Your task to perform on an android device: change the clock display to digital Image 0: 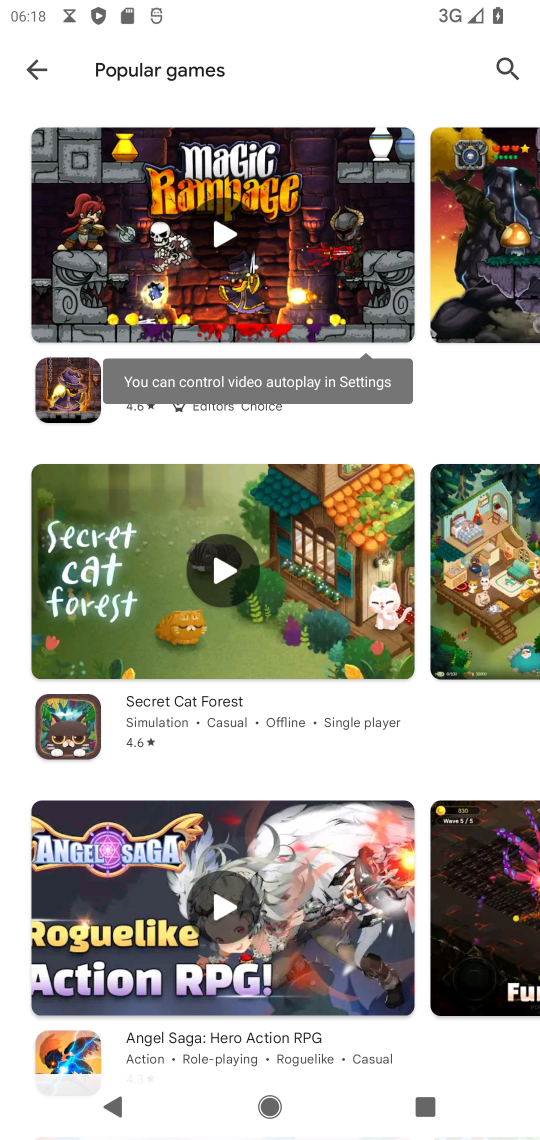
Step 0: press home button
Your task to perform on an android device: change the clock display to digital Image 1: 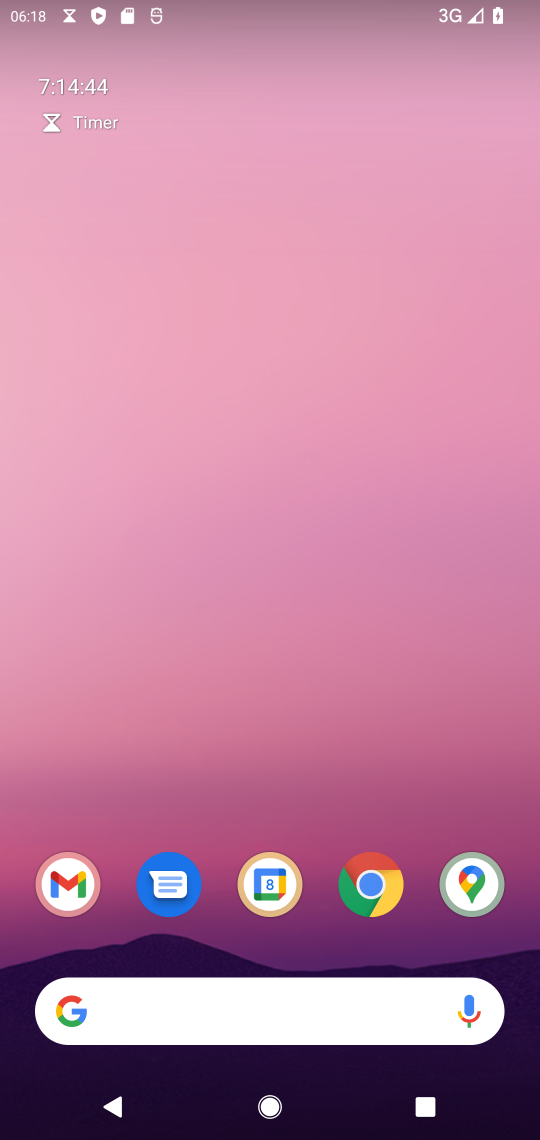
Step 1: drag from (406, 831) to (353, 83)
Your task to perform on an android device: change the clock display to digital Image 2: 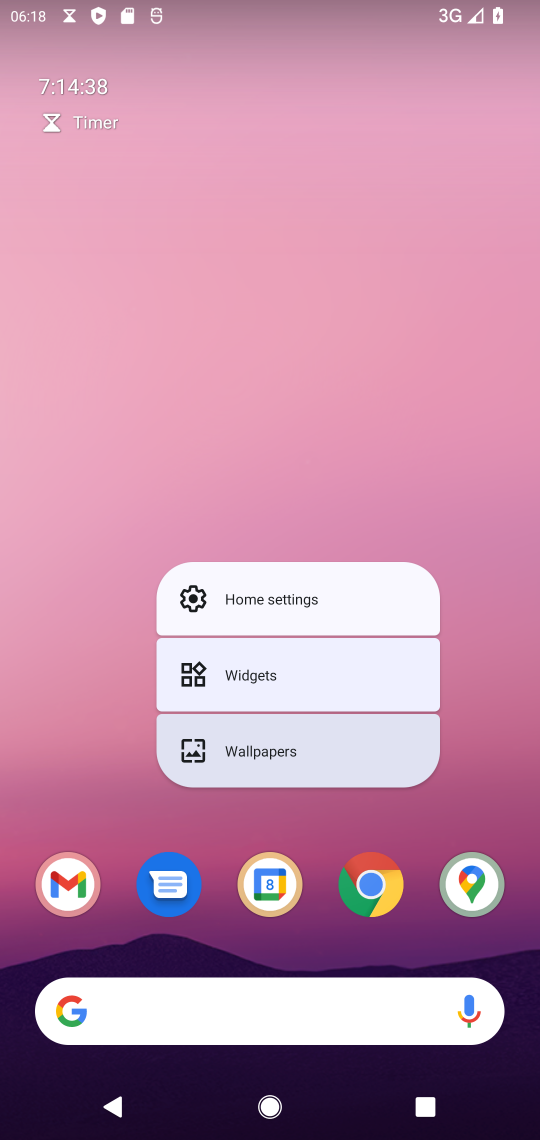
Step 2: drag from (524, 860) to (434, 188)
Your task to perform on an android device: change the clock display to digital Image 3: 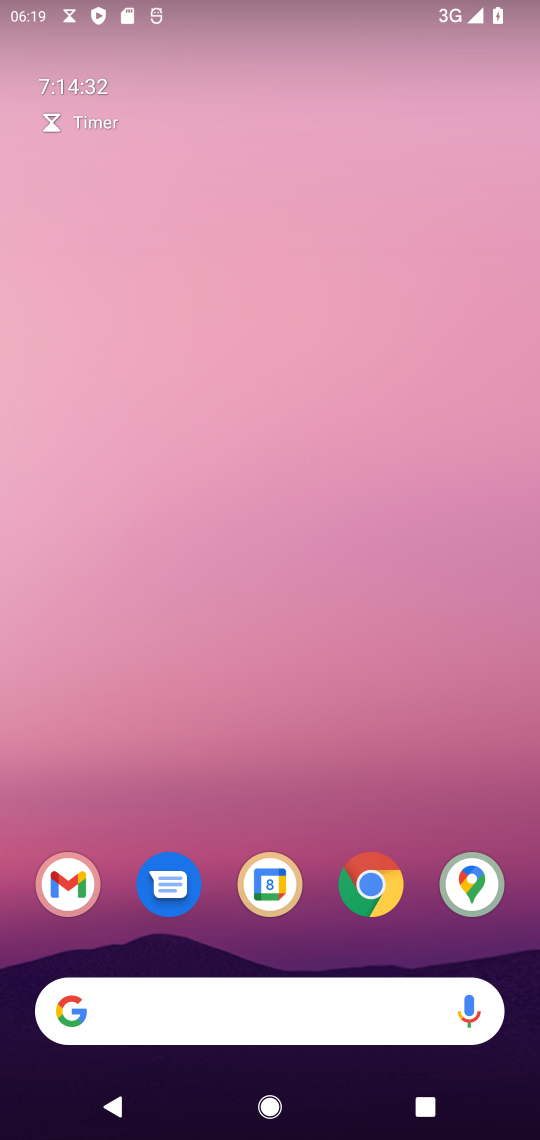
Step 3: drag from (428, 939) to (354, 41)
Your task to perform on an android device: change the clock display to digital Image 4: 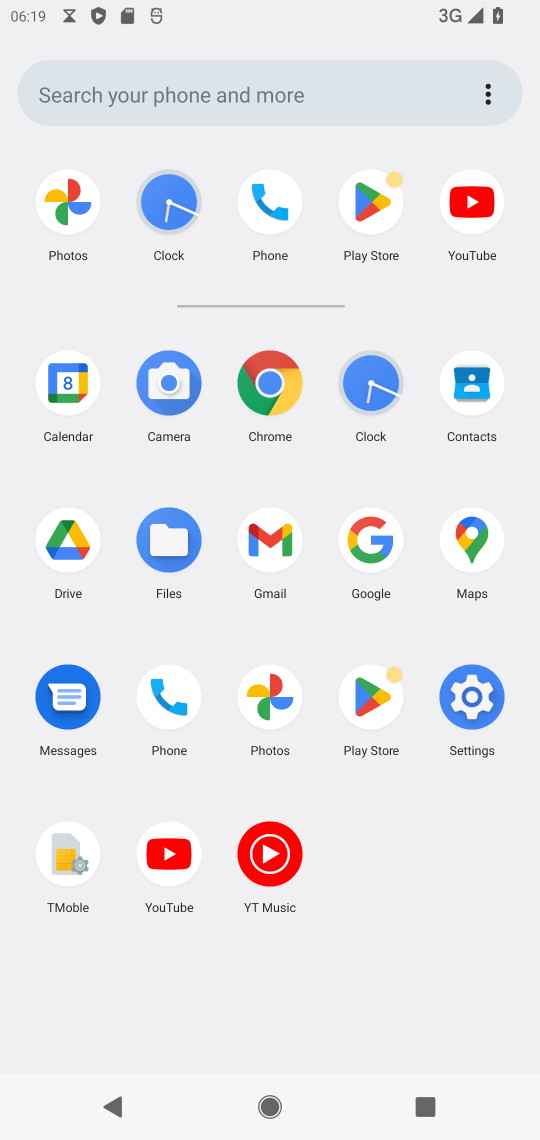
Step 4: click (376, 393)
Your task to perform on an android device: change the clock display to digital Image 5: 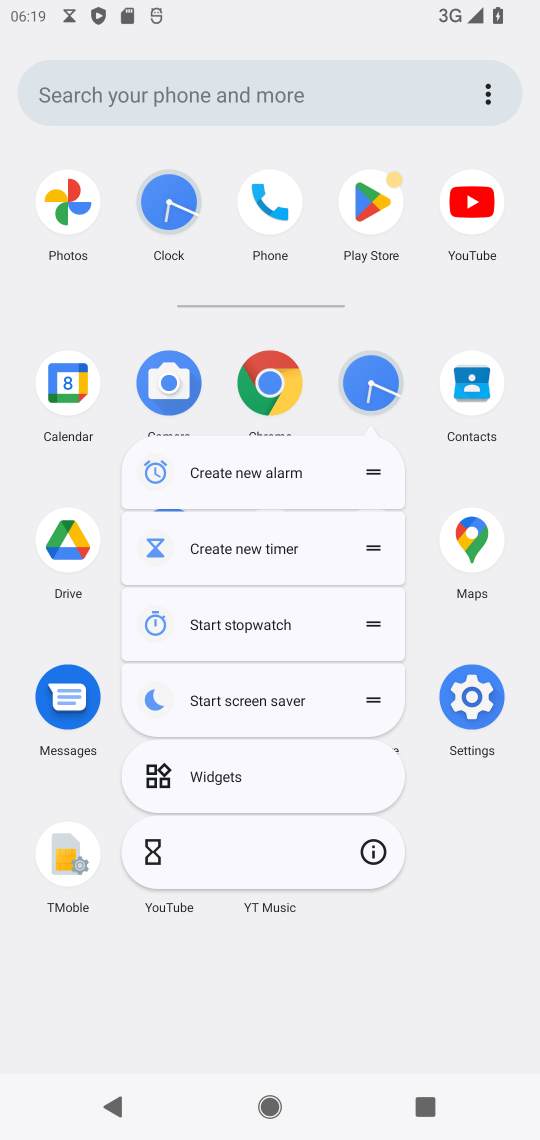
Step 5: click (376, 393)
Your task to perform on an android device: change the clock display to digital Image 6: 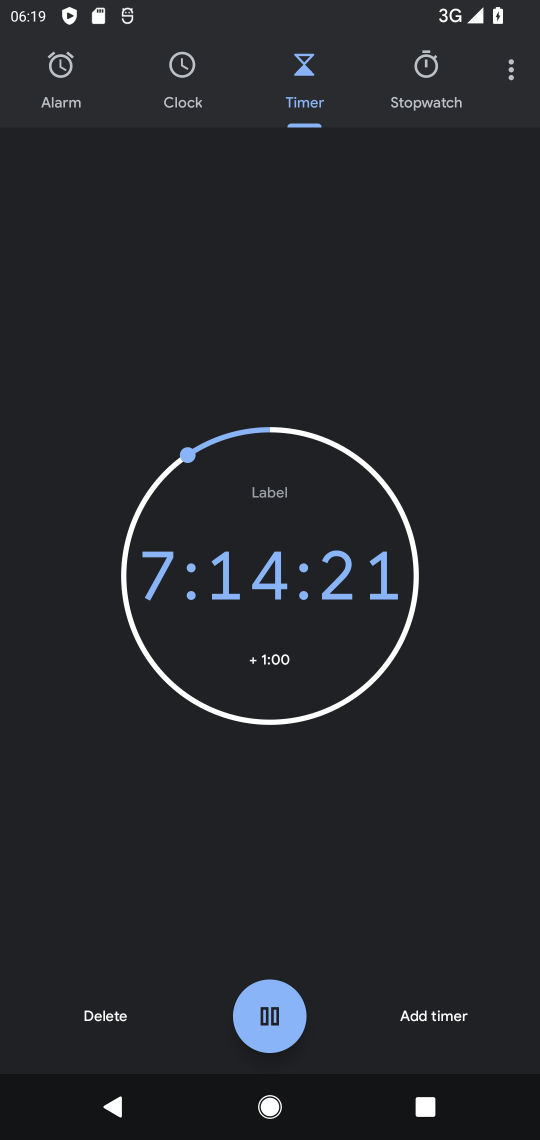
Step 6: click (518, 70)
Your task to perform on an android device: change the clock display to digital Image 7: 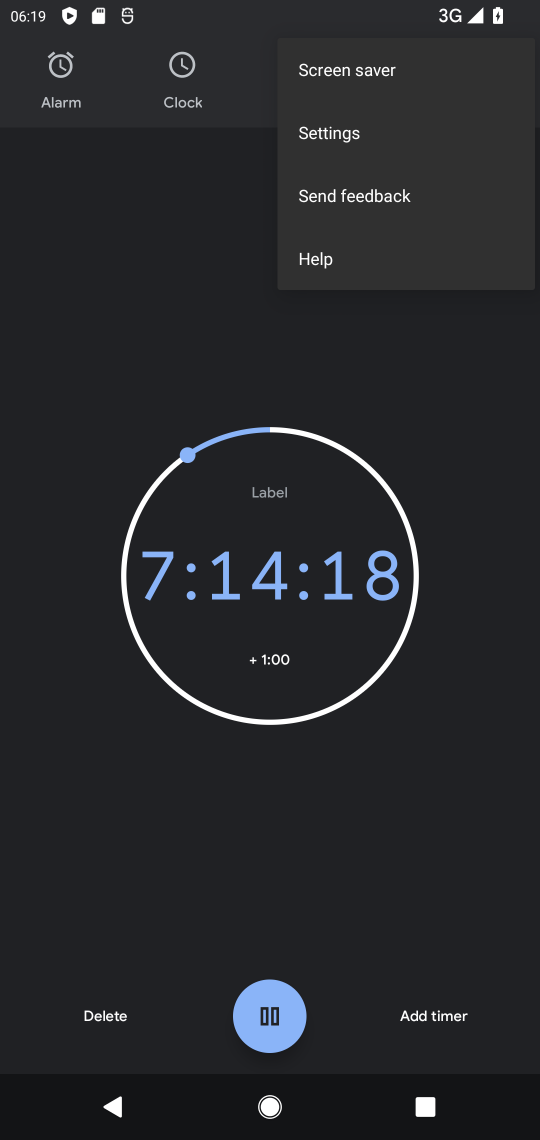
Step 7: click (402, 137)
Your task to perform on an android device: change the clock display to digital Image 8: 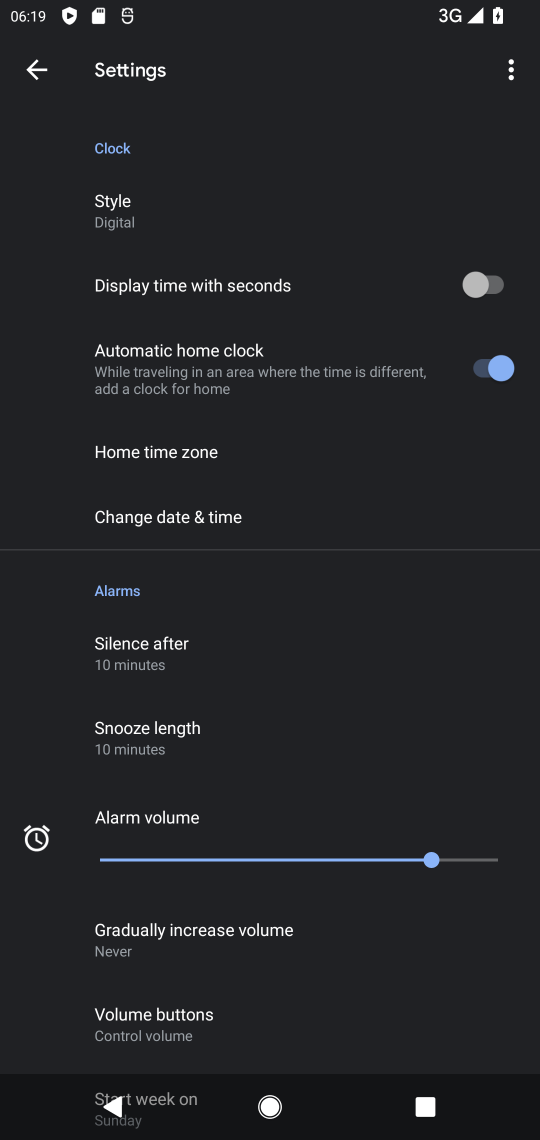
Step 8: click (282, 202)
Your task to perform on an android device: change the clock display to digital Image 9: 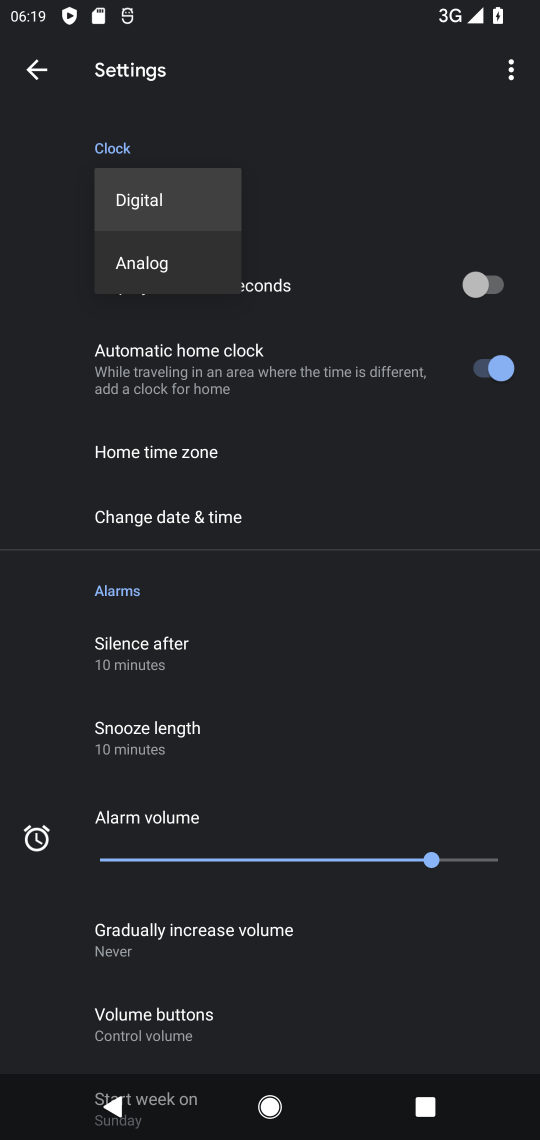
Step 9: click (231, 203)
Your task to perform on an android device: change the clock display to digital Image 10: 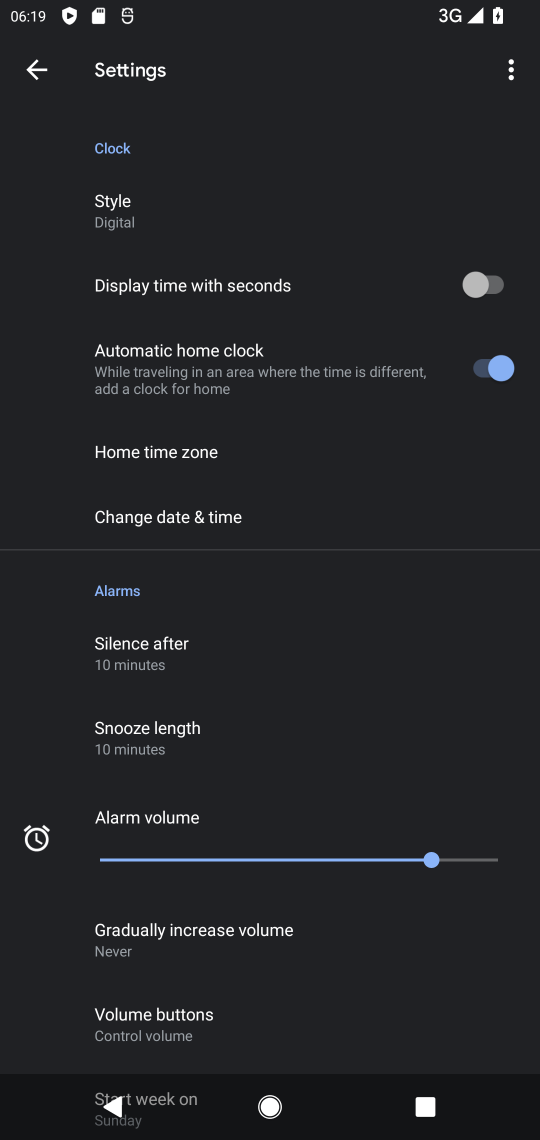
Step 10: task complete